Your task to perform on an android device: Open notification settings Image 0: 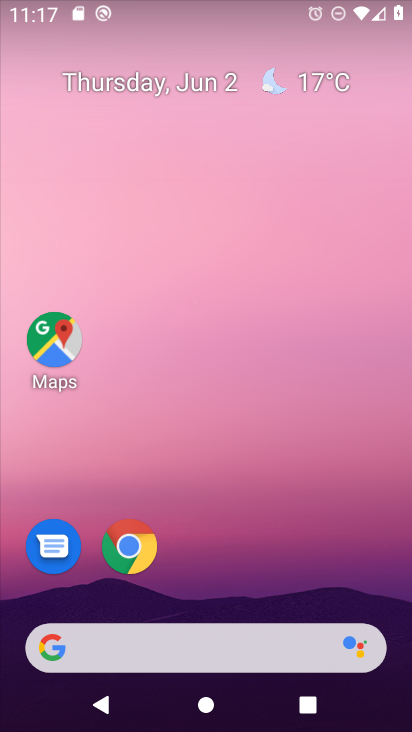
Step 0: drag from (207, 541) to (183, 41)
Your task to perform on an android device: Open notification settings Image 1: 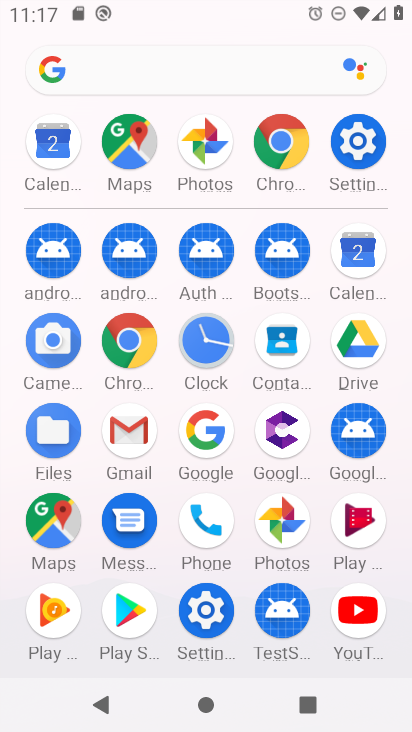
Step 1: click (205, 611)
Your task to perform on an android device: Open notification settings Image 2: 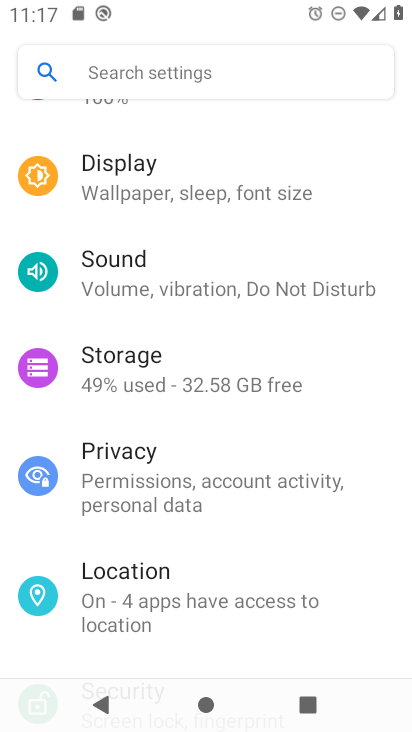
Step 2: drag from (267, 474) to (250, 610)
Your task to perform on an android device: Open notification settings Image 3: 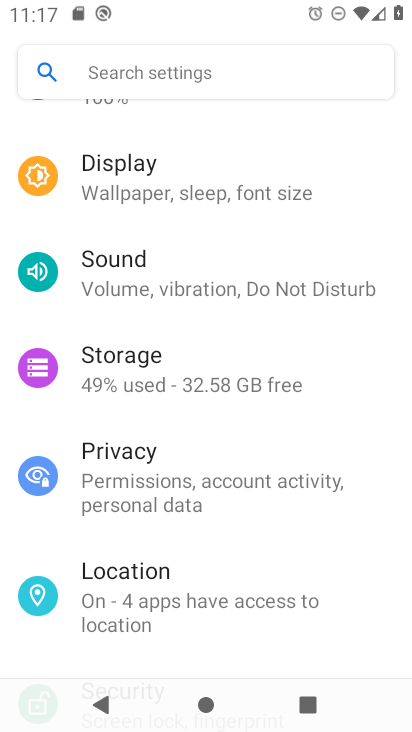
Step 3: drag from (236, 250) to (217, 599)
Your task to perform on an android device: Open notification settings Image 4: 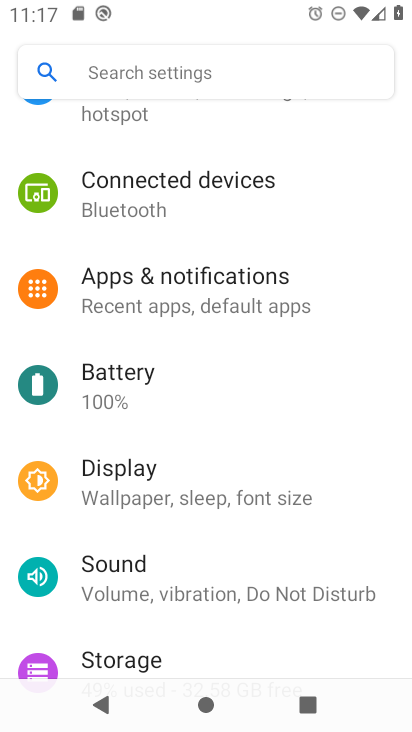
Step 4: click (208, 301)
Your task to perform on an android device: Open notification settings Image 5: 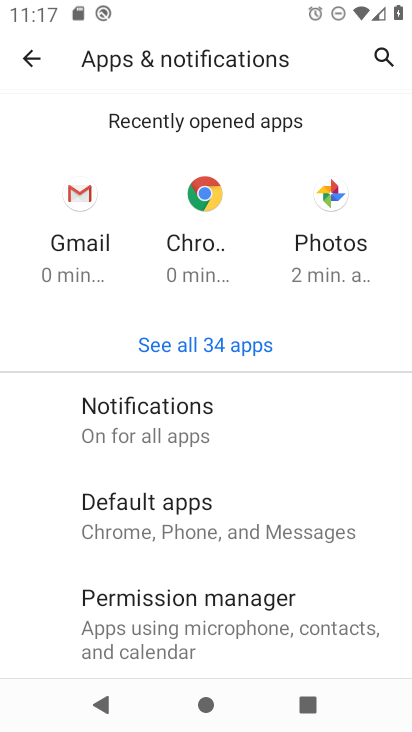
Step 5: click (222, 415)
Your task to perform on an android device: Open notification settings Image 6: 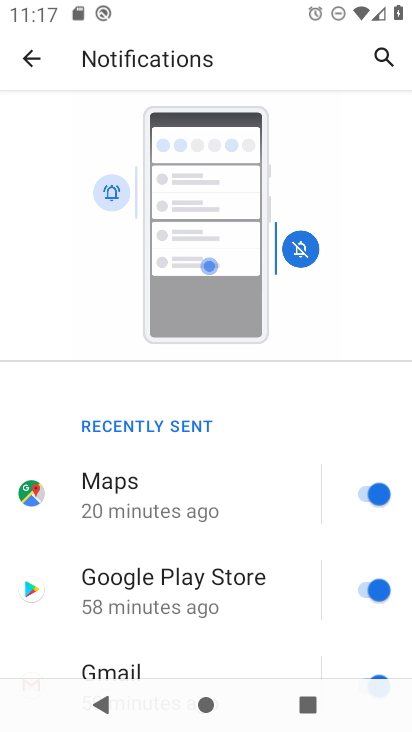
Step 6: click (235, 262)
Your task to perform on an android device: Open notification settings Image 7: 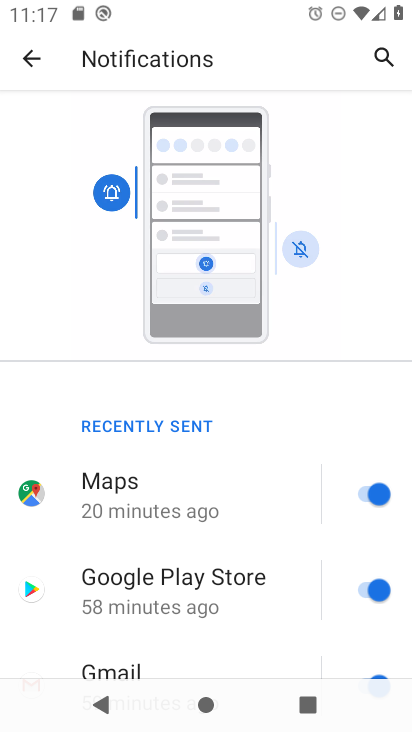
Step 7: drag from (276, 615) to (265, 165)
Your task to perform on an android device: Open notification settings Image 8: 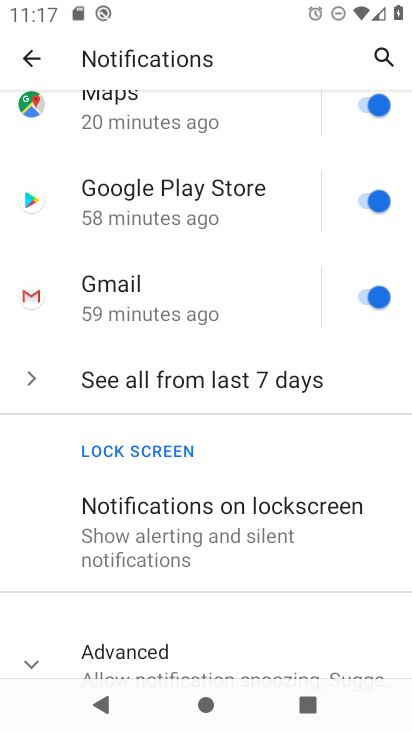
Step 8: drag from (159, 625) to (228, 203)
Your task to perform on an android device: Open notification settings Image 9: 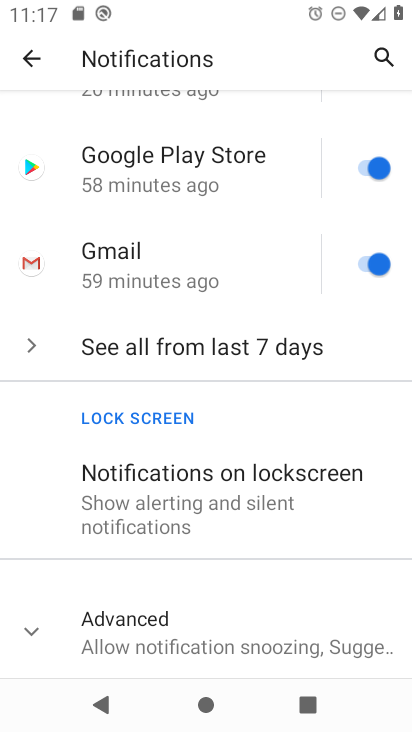
Step 9: click (28, 622)
Your task to perform on an android device: Open notification settings Image 10: 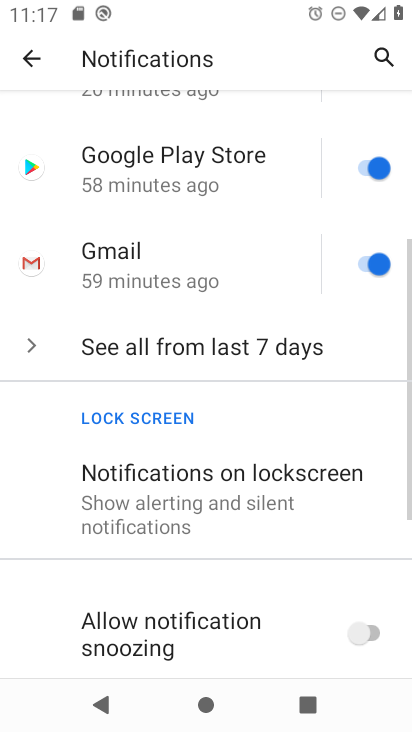
Step 10: drag from (207, 610) to (247, 214)
Your task to perform on an android device: Open notification settings Image 11: 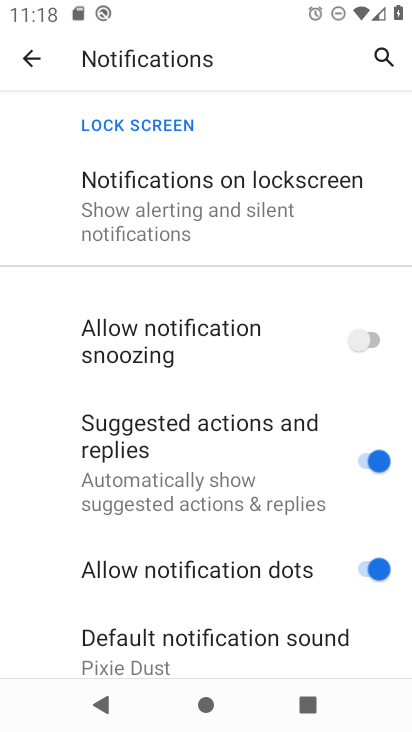
Step 11: click (219, 136)
Your task to perform on an android device: Open notification settings Image 12: 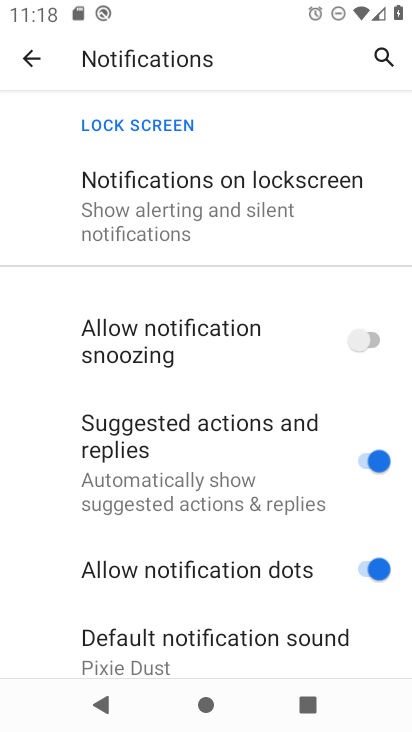
Step 12: task complete